Your task to perform on an android device: read, delete, or share a saved page in the chrome app Image 0: 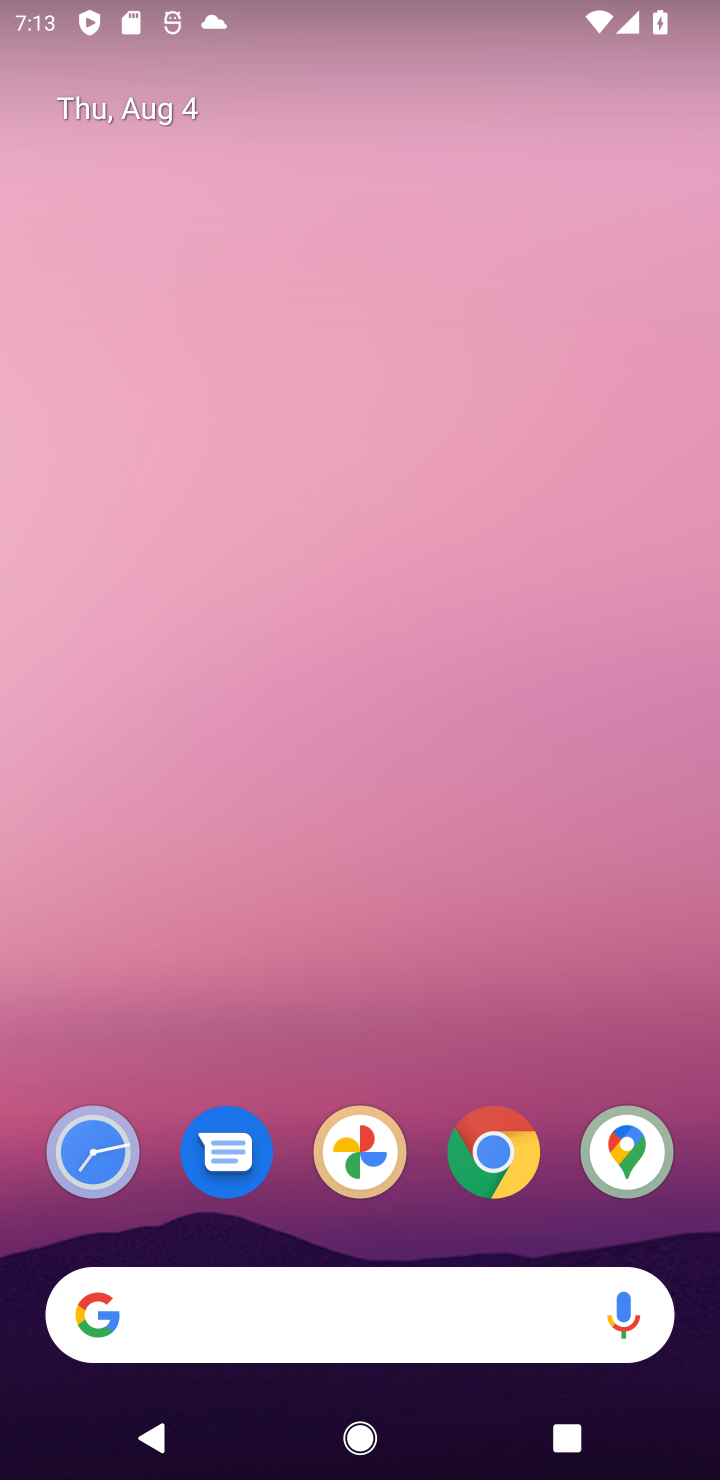
Step 0: click (477, 1153)
Your task to perform on an android device: read, delete, or share a saved page in the chrome app Image 1: 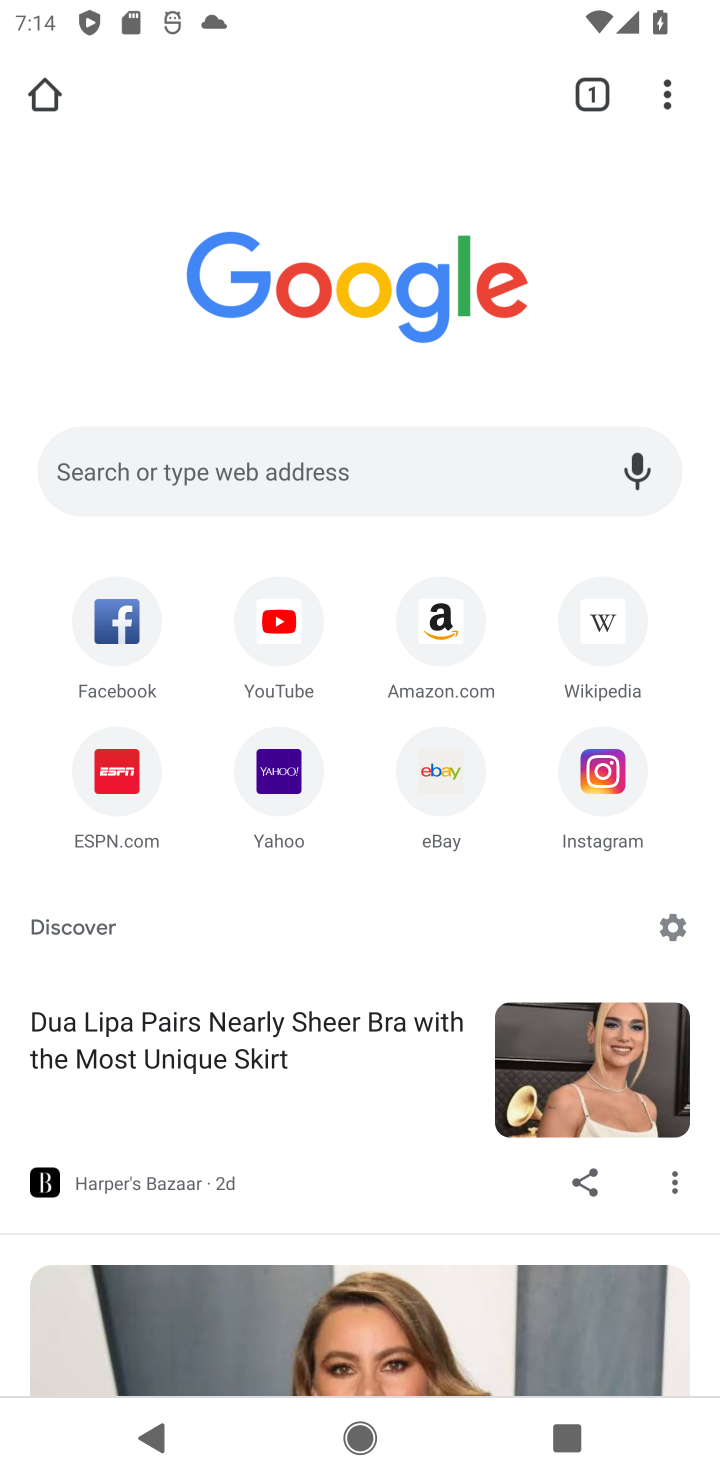
Step 1: click (107, 637)
Your task to perform on an android device: read, delete, or share a saved page in the chrome app Image 2: 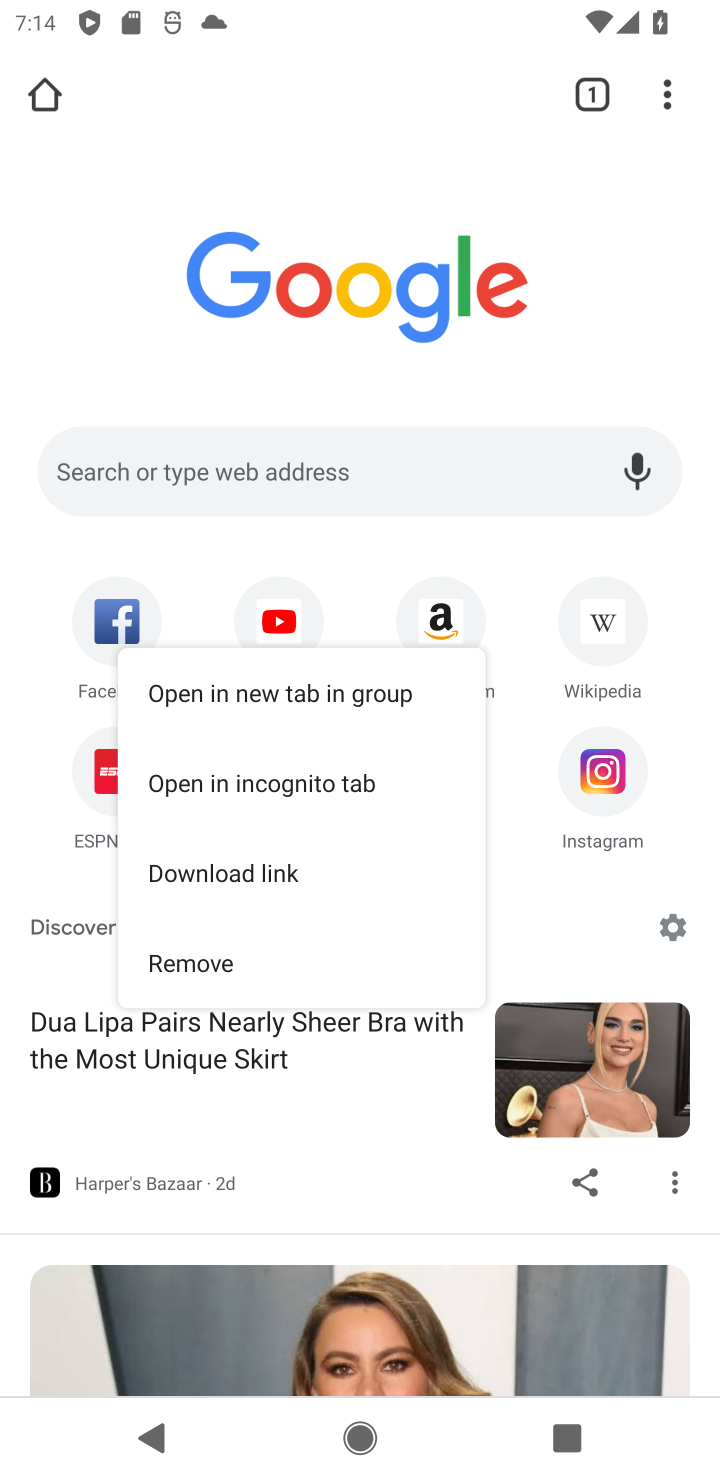
Step 2: click (209, 964)
Your task to perform on an android device: read, delete, or share a saved page in the chrome app Image 3: 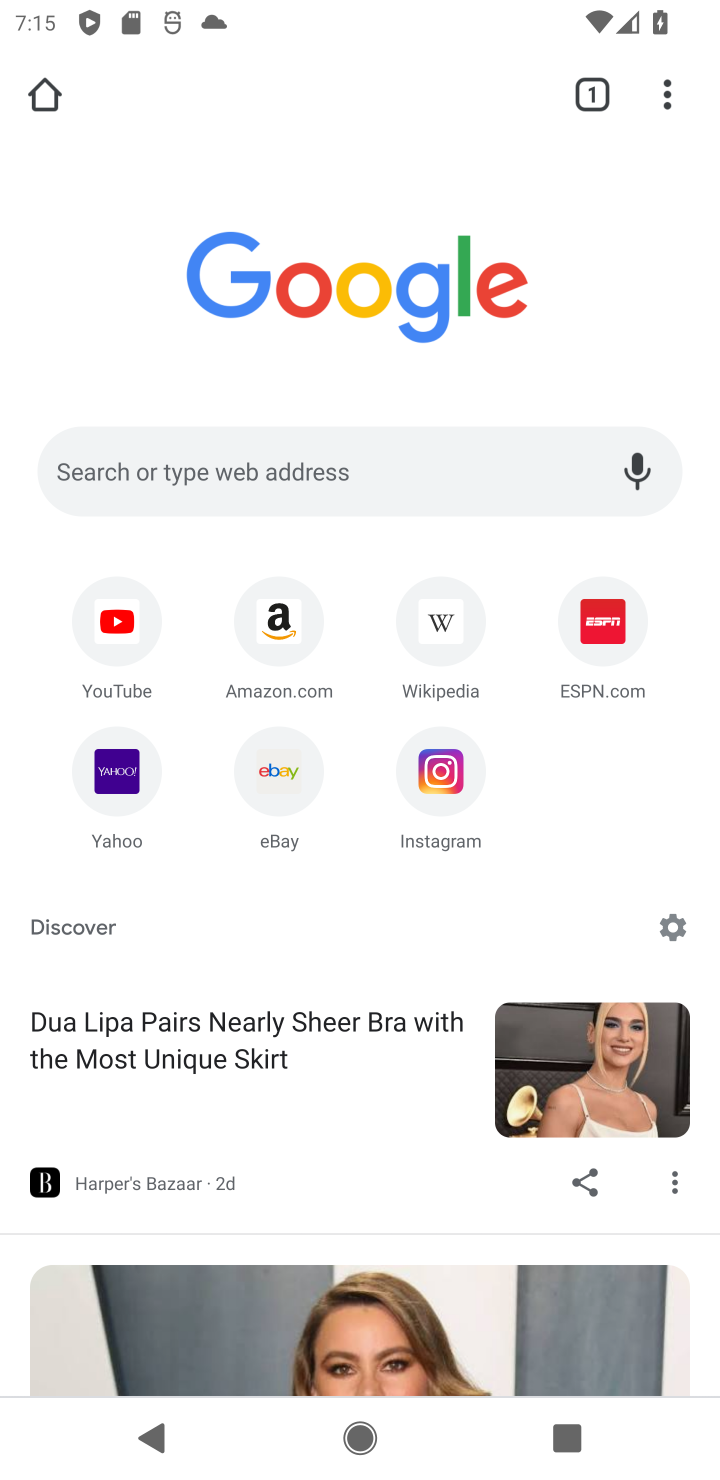
Step 3: task complete